Your task to perform on an android device: open app "Google Chrome" (install if not already installed) Image 0: 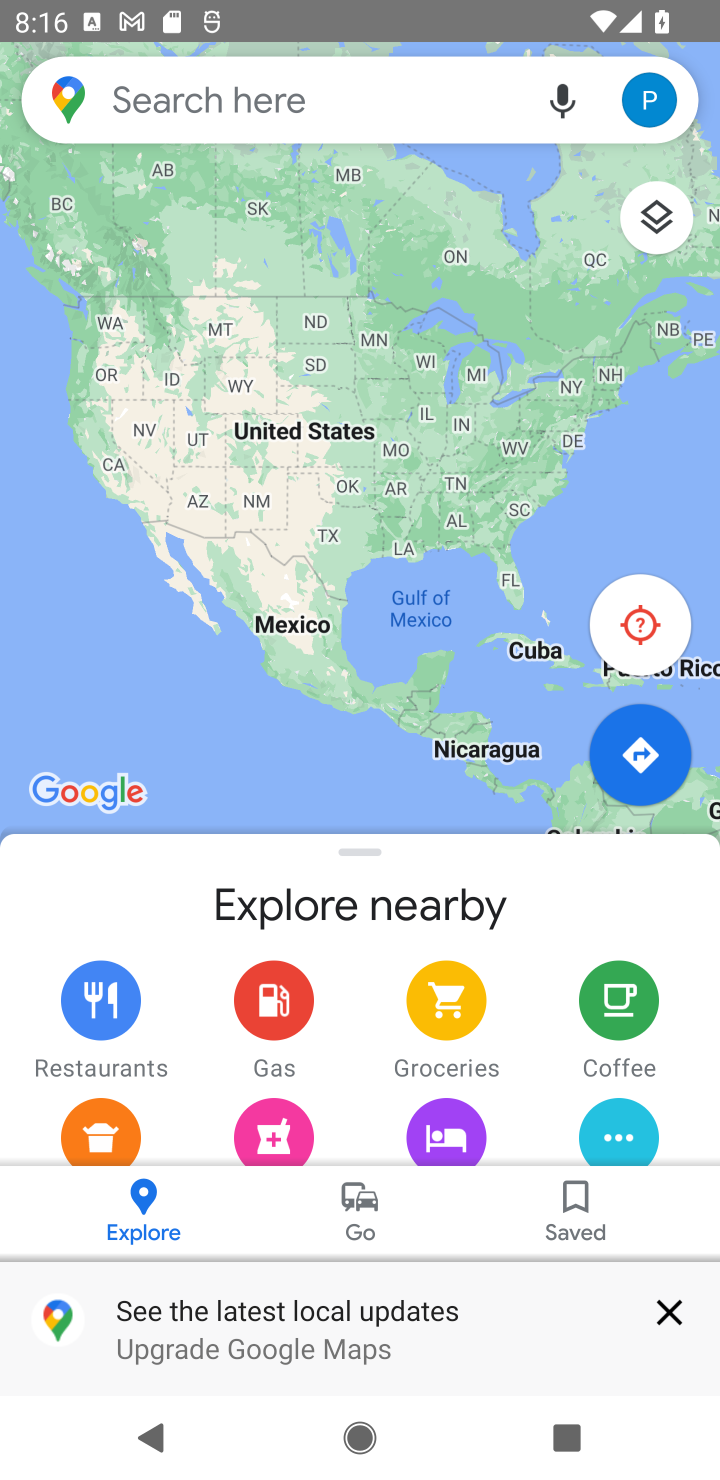
Step 0: press home button
Your task to perform on an android device: open app "Google Chrome" (install if not already installed) Image 1: 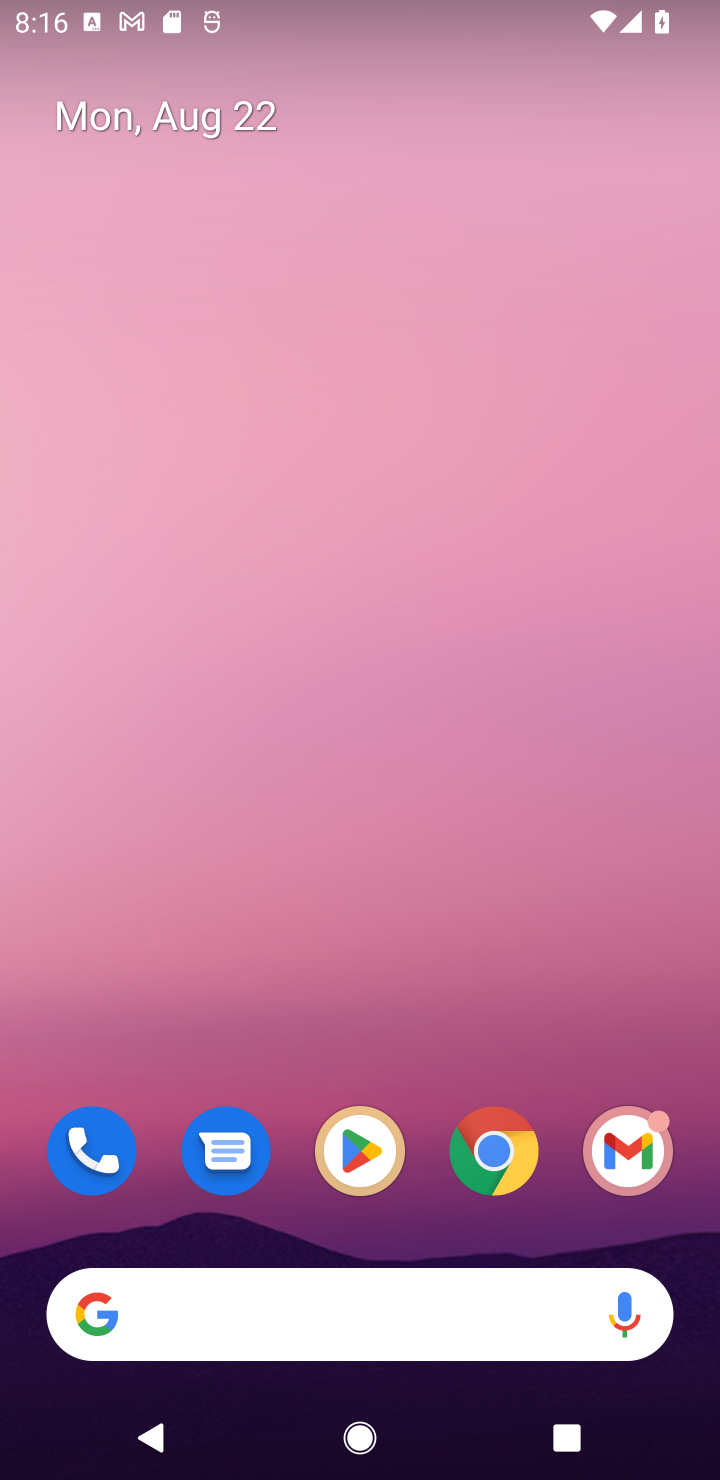
Step 1: click (365, 1130)
Your task to perform on an android device: open app "Google Chrome" (install if not already installed) Image 2: 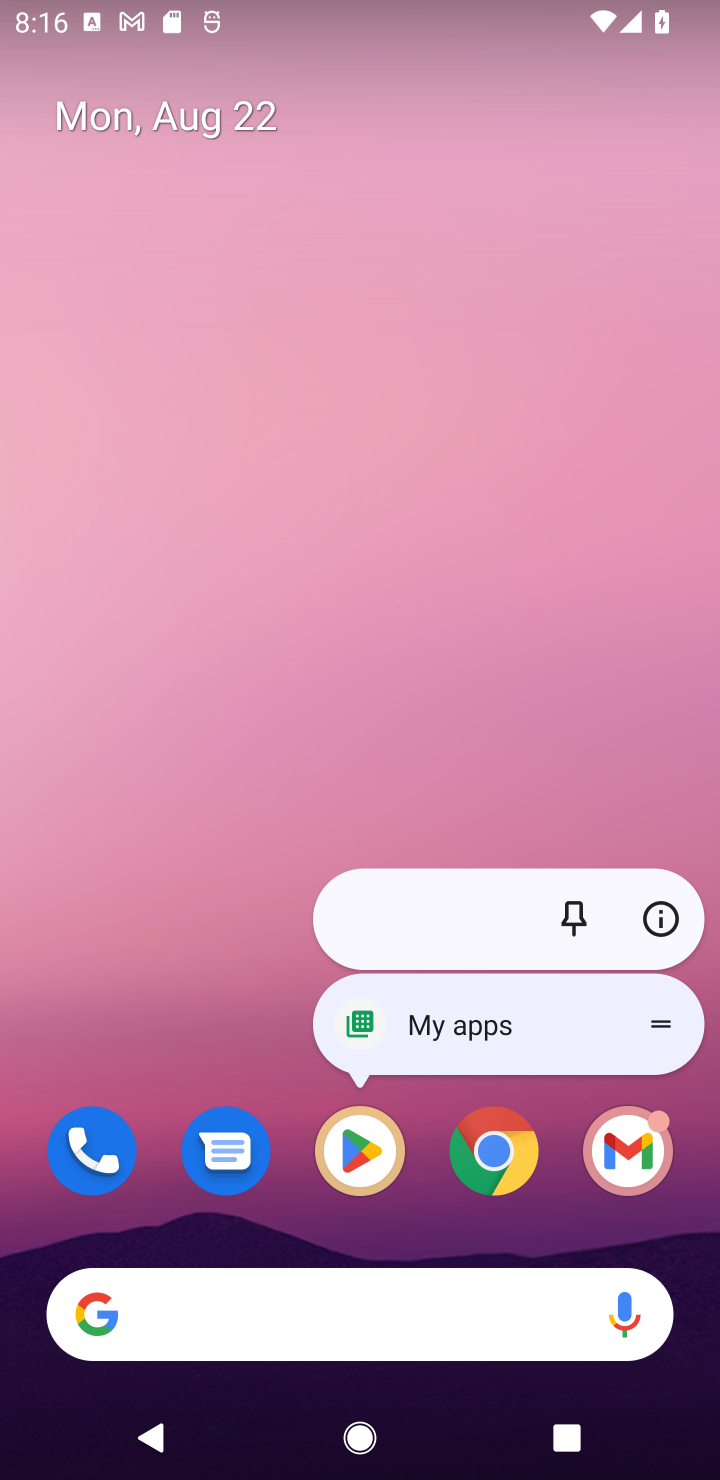
Step 2: click (365, 1144)
Your task to perform on an android device: open app "Google Chrome" (install if not already installed) Image 3: 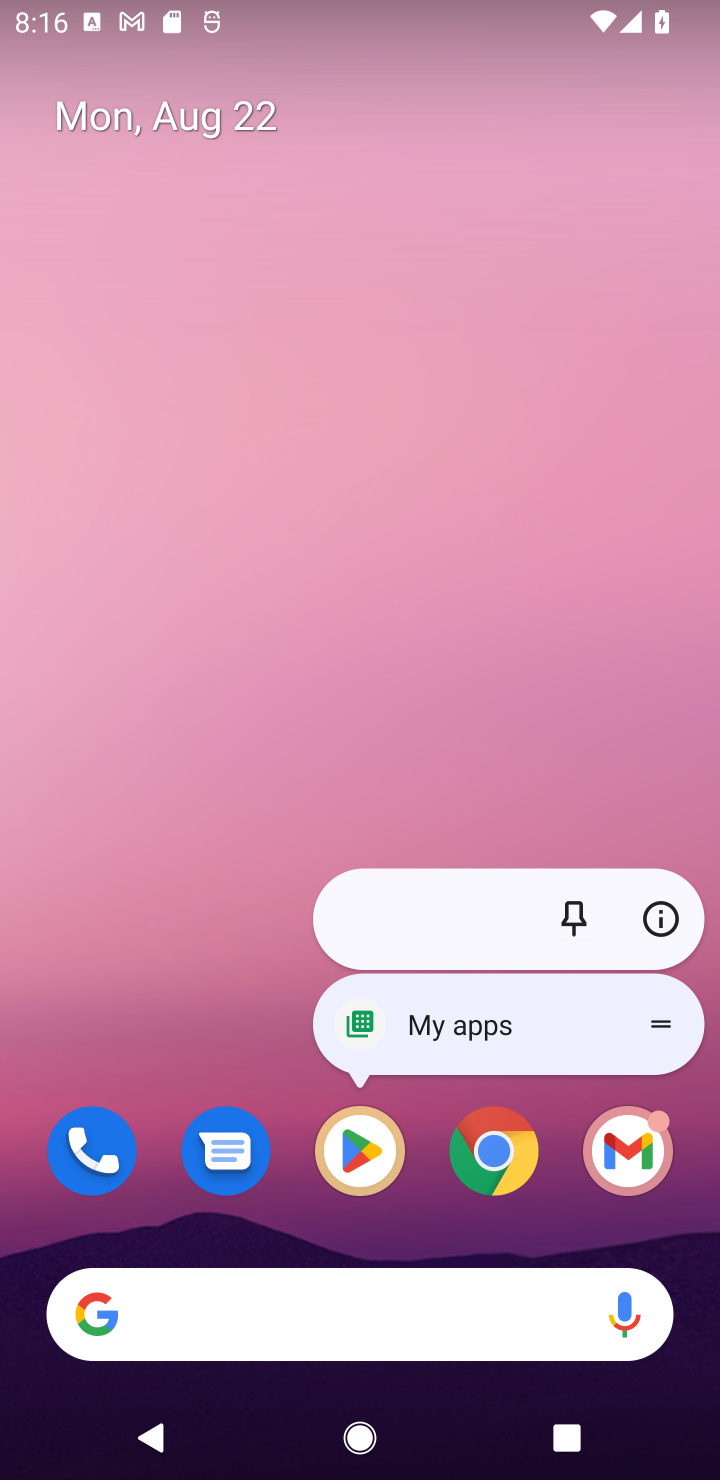
Step 3: click (365, 1137)
Your task to perform on an android device: open app "Google Chrome" (install if not already installed) Image 4: 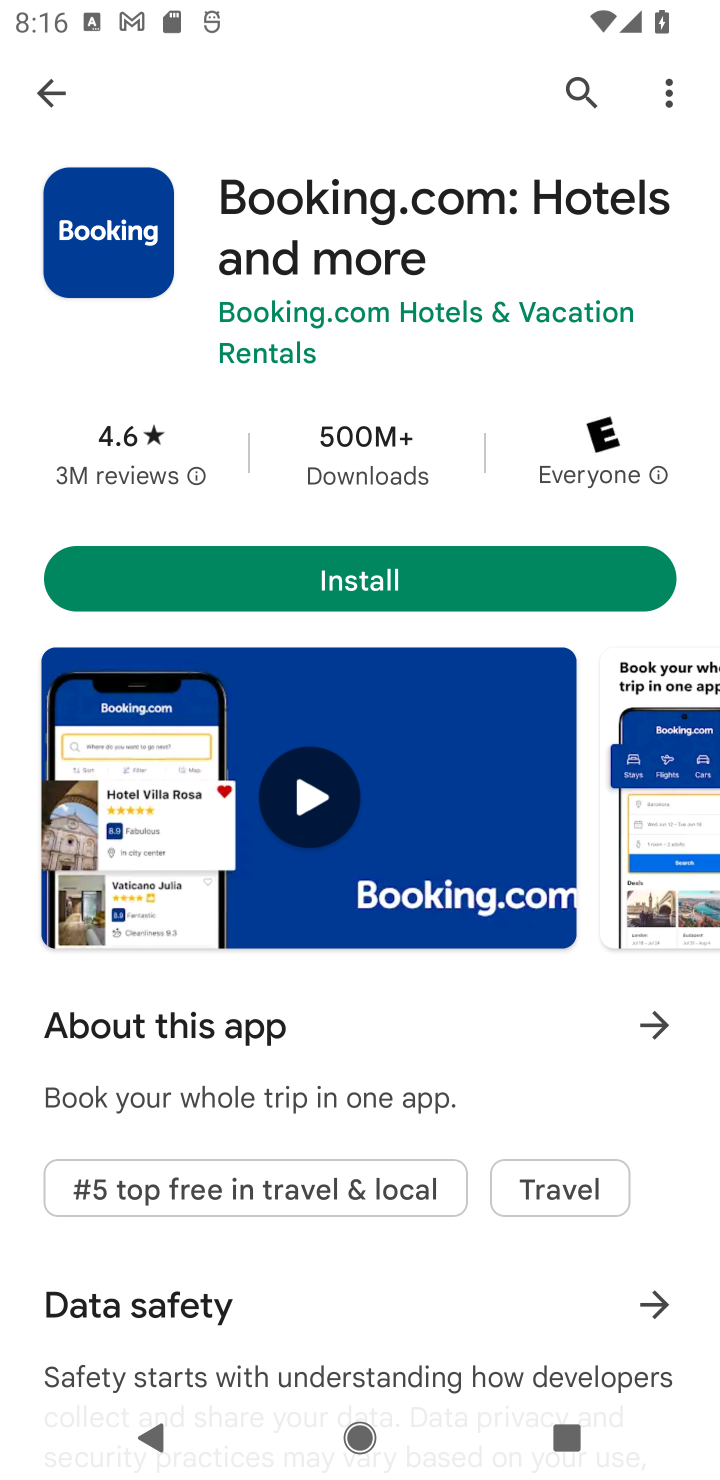
Step 4: click (577, 84)
Your task to perform on an android device: open app "Google Chrome" (install if not already installed) Image 5: 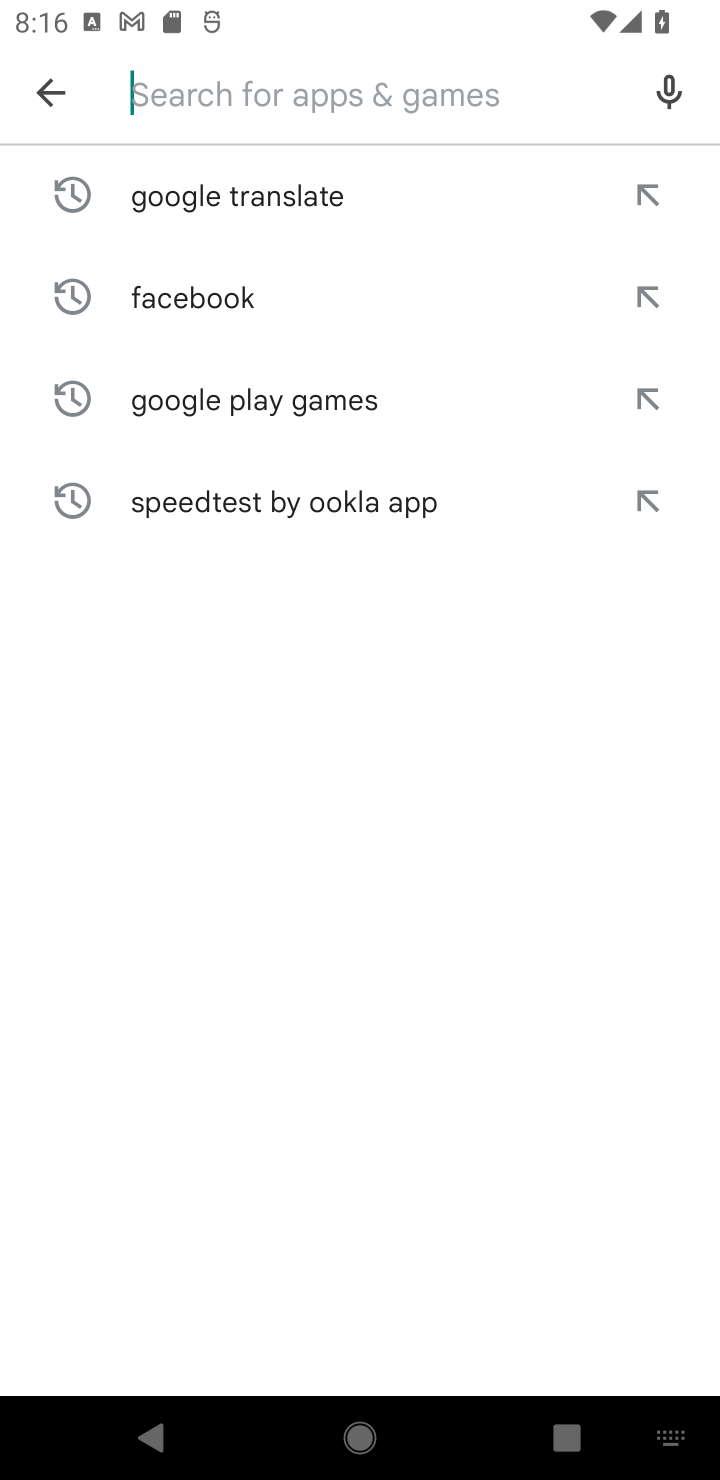
Step 5: type "Google Chrome"
Your task to perform on an android device: open app "Google Chrome" (install if not already installed) Image 6: 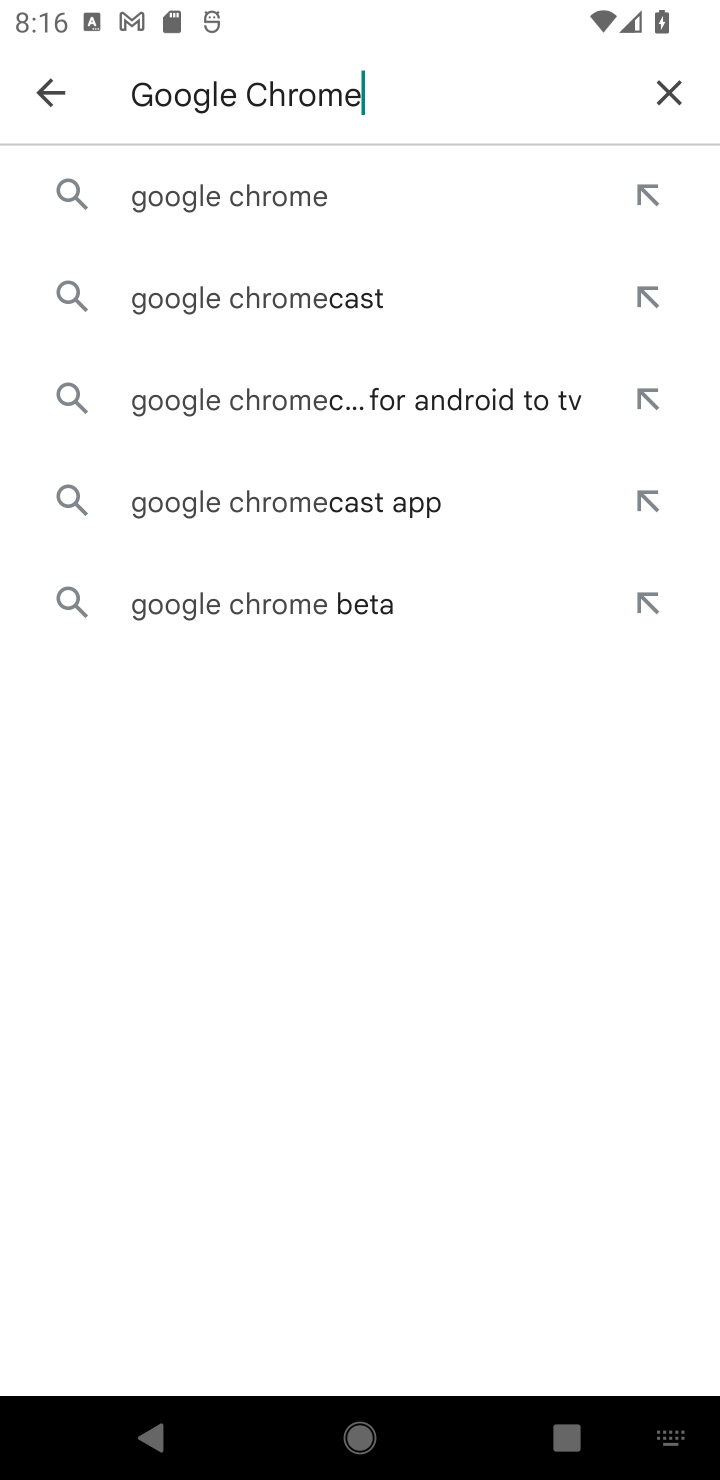
Step 6: click (295, 179)
Your task to perform on an android device: open app "Google Chrome" (install if not already installed) Image 7: 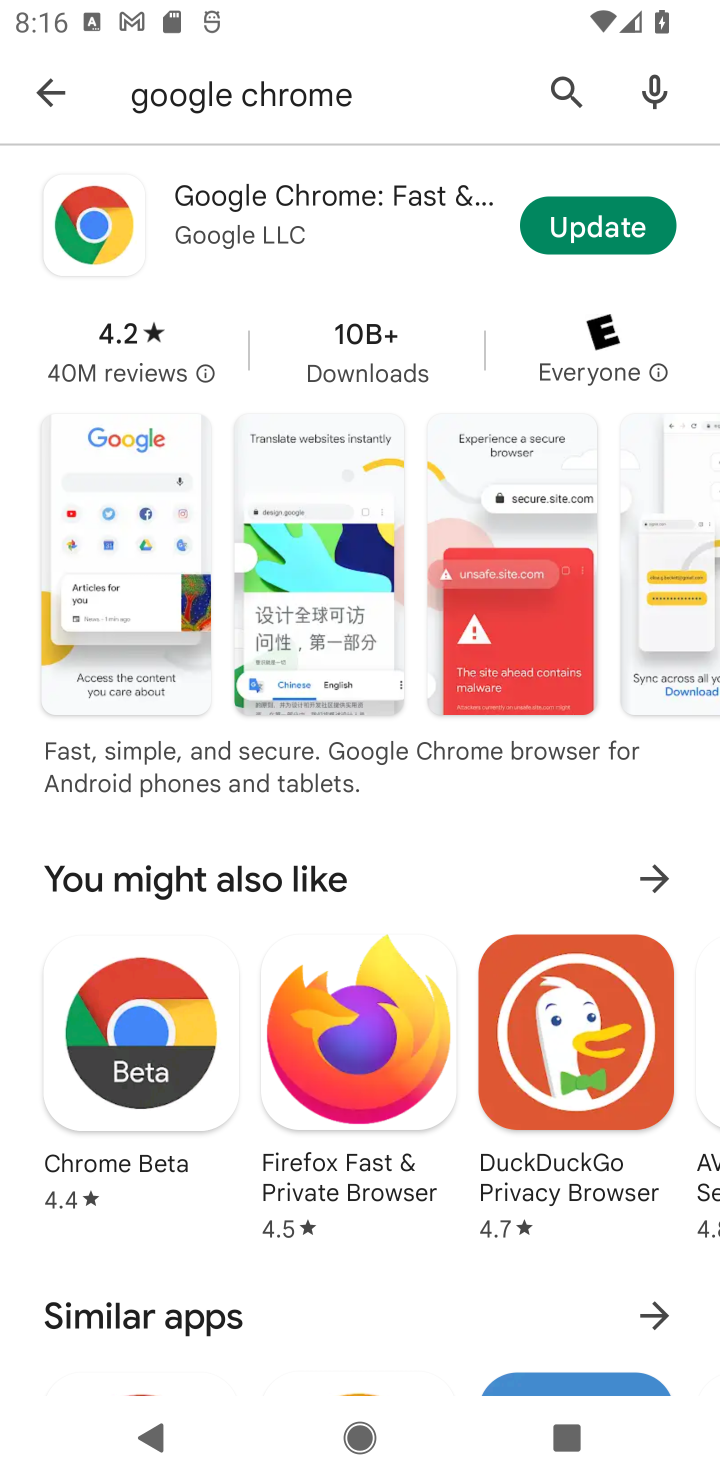
Step 7: click (205, 215)
Your task to perform on an android device: open app "Google Chrome" (install if not already installed) Image 8: 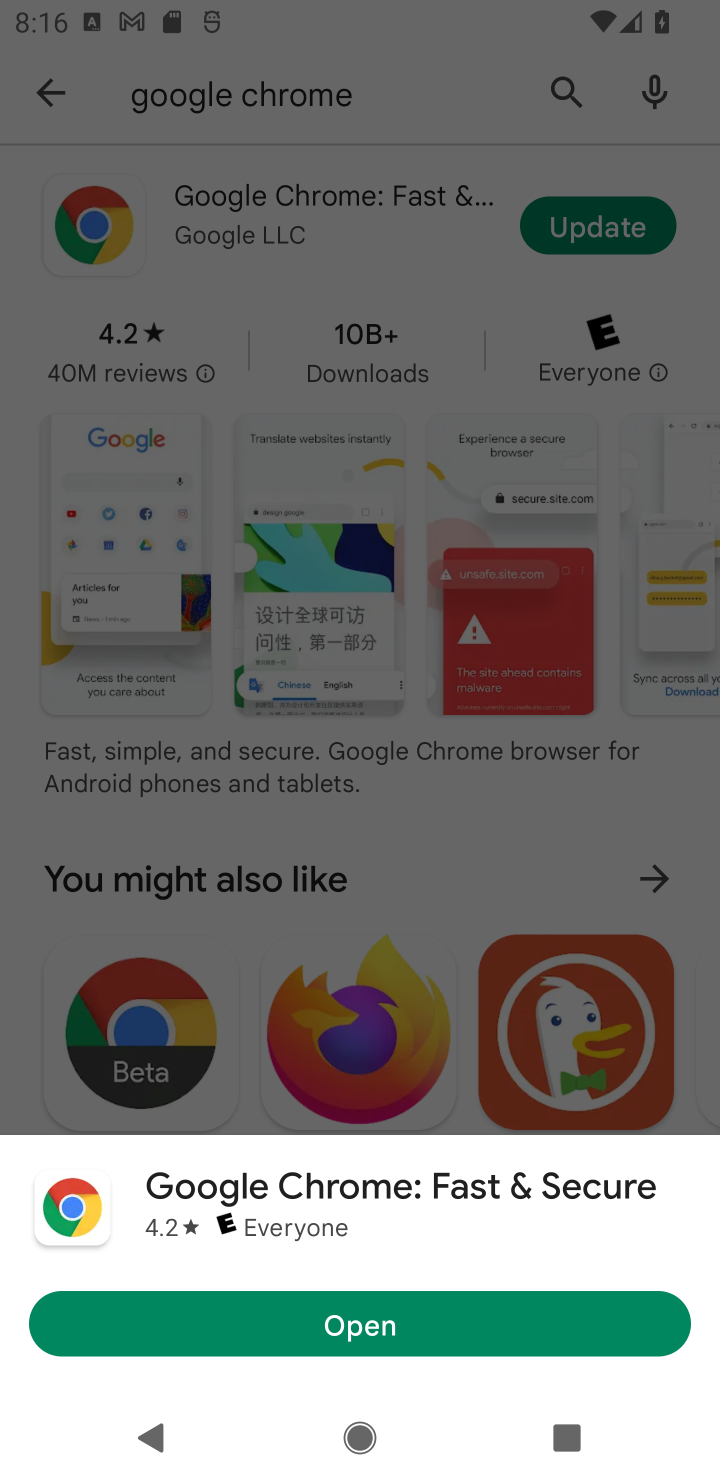
Step 8: click (388, 1316)
Your task to perform on an android device: open app "Google Chrome" (install if not already installed) Image 9: 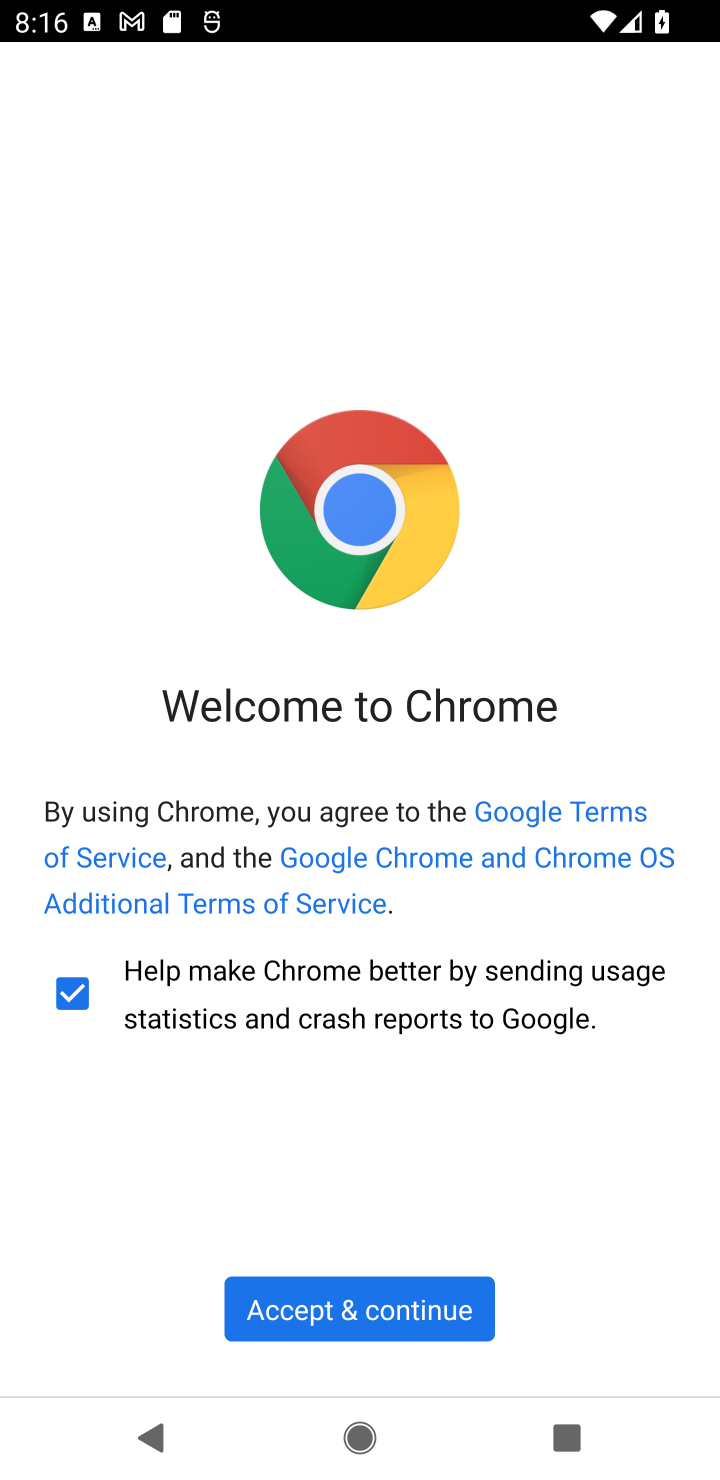
Step 9: click (388, 1313)
Your task to perform on an android device: open app "Google Chrome" (install if not already installed) Image 10: 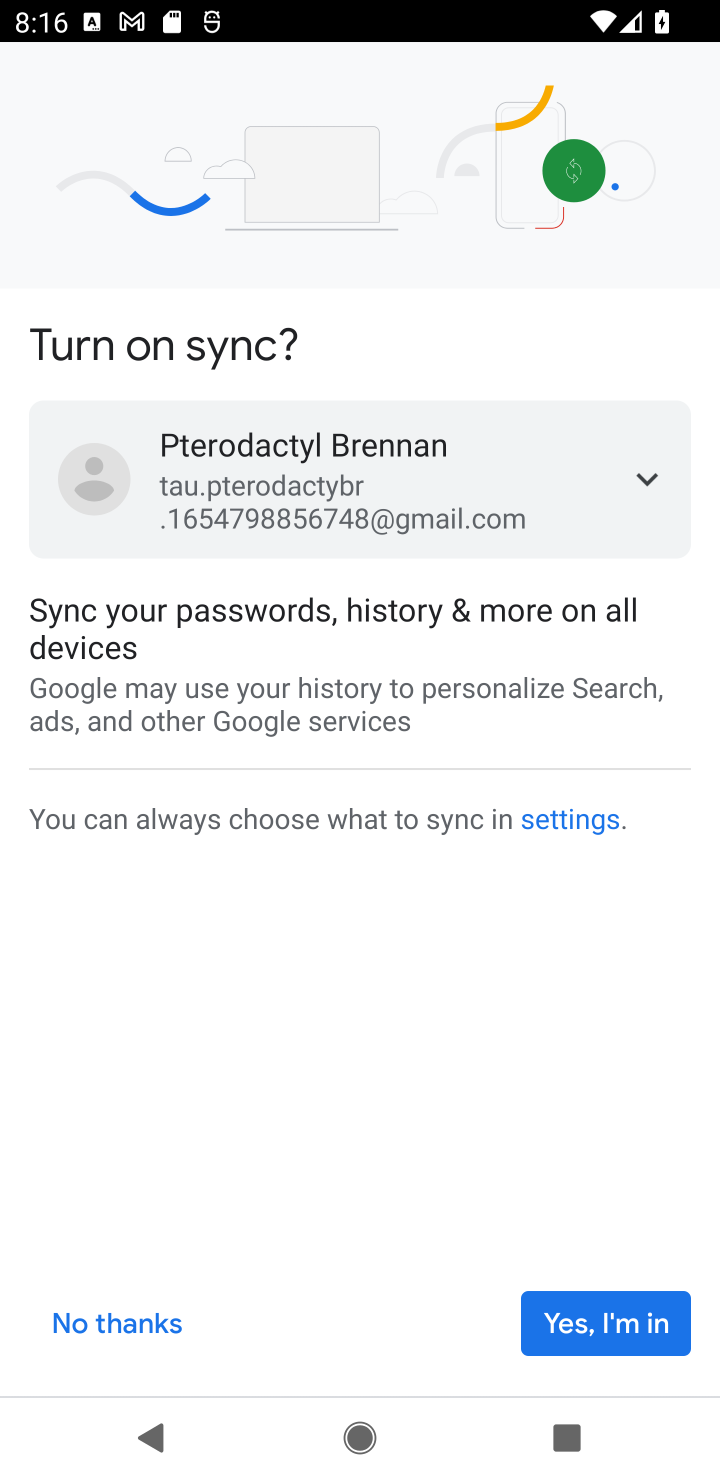
Step 10: click (557, 1334)
Your task to perform on an android device: open app "Google Chrome" (install if not already installed) Image 11: 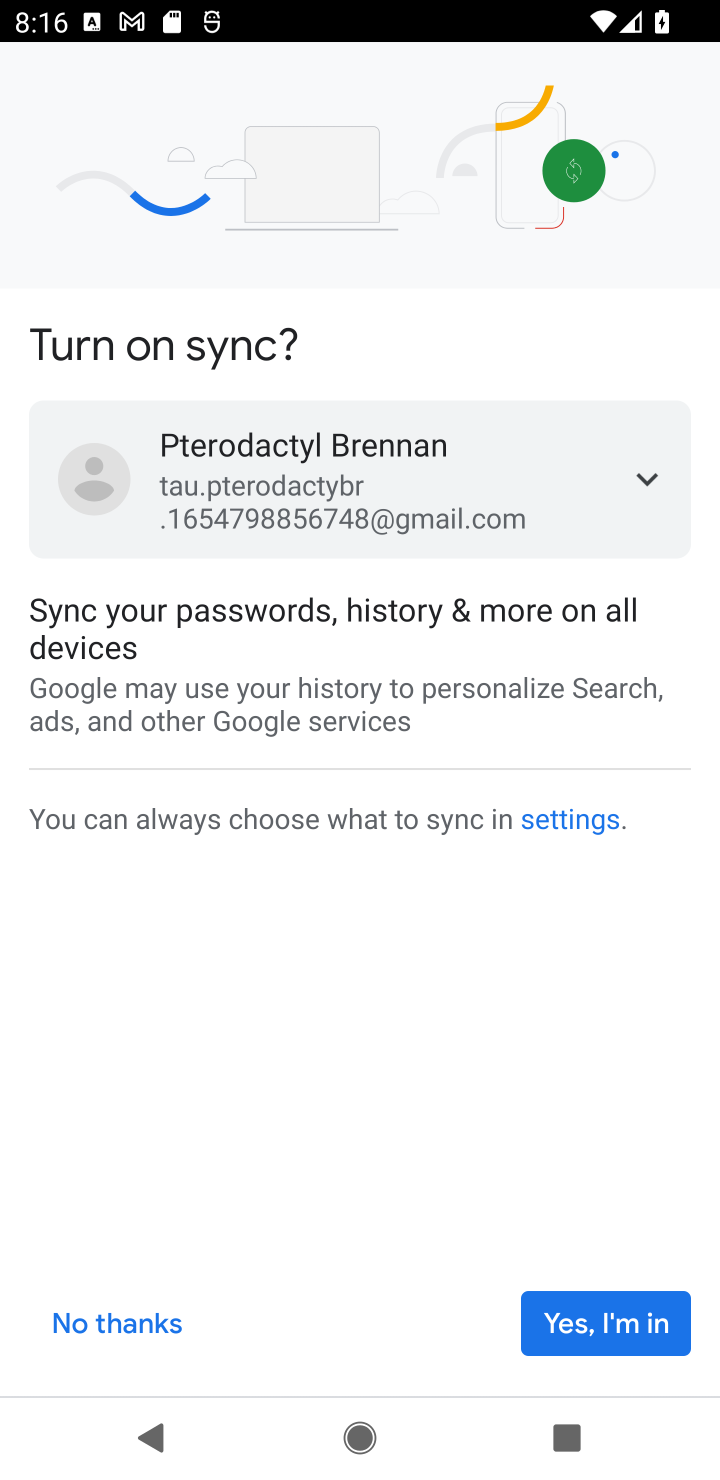
Step 11: click (577, 1313)
Your task to perform on an android device: open app "Google Chrome" (install if not already installed) Image 12: 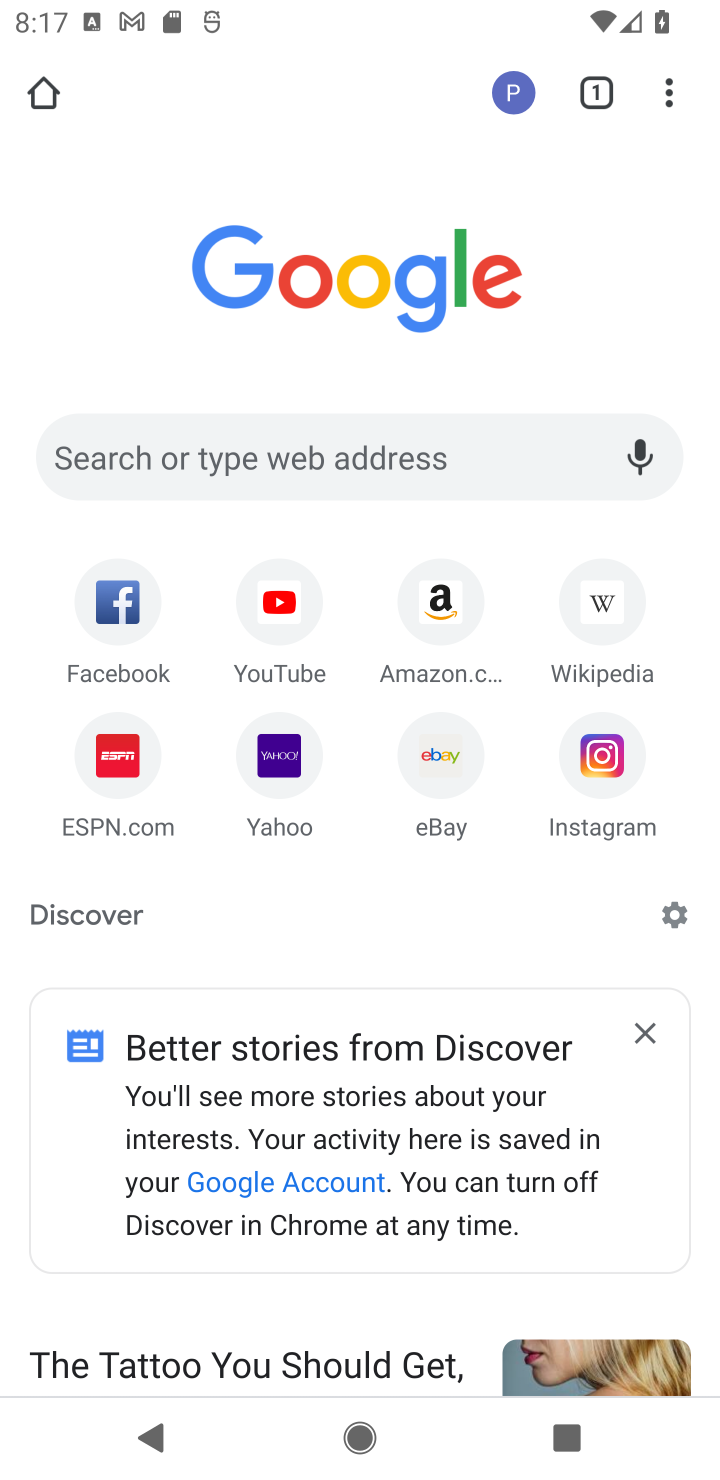
Step 12: task complete